Your task to perform on an android device: What's on the menu at Chick-fil-A? Image 0: 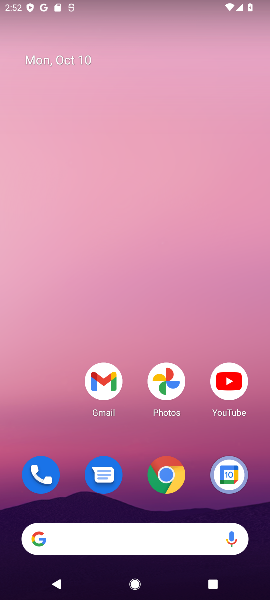
Step 0: drag from (142, 500) to (165, 170)
Your task to perform on an android device: What's on the menu at Chick-fil-A? Image 1: 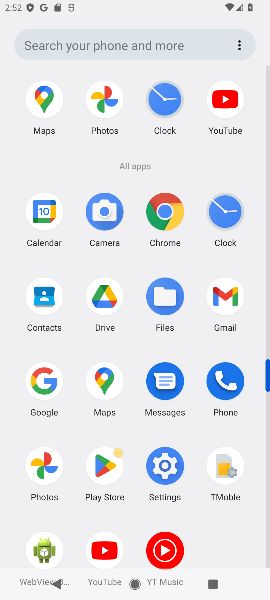
Step 1: click (50, 394)
Your task to perform on an android device: What's on the menu at Chick-fil-A? Image 2: 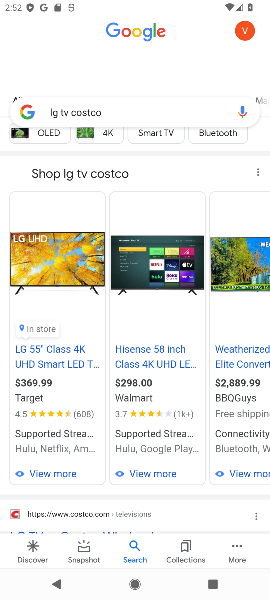
Step 2: click (123, 108)
Your task to perform on an android device: What's on the menu at Chick-fil-A? Image 3: 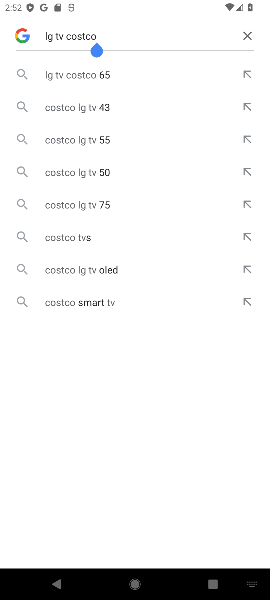
Step 3: click (248, 36)
Your task to perform on an android device: What's on the menu at Chick-fil-A? Image 4: 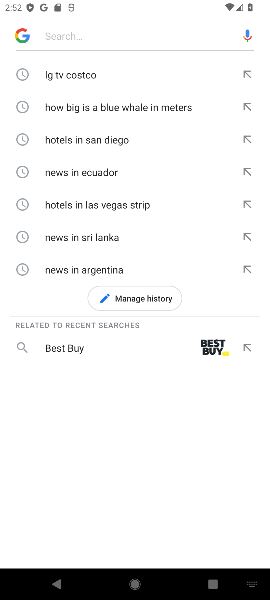
Step 4: type "Chick-fil-A"
Your task to perform on an android device: What's on the menu at Chick-fil-A? Image 5: 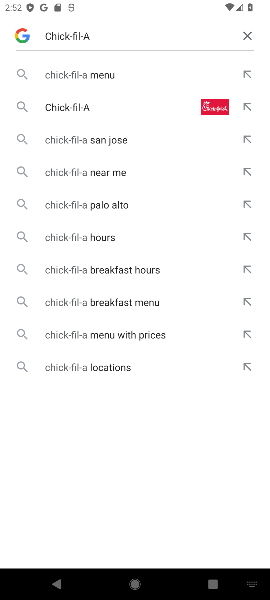
Step 5: click (99, 110)
Your task to perform on an android device: What's on the menu at Chick-fil-A? Image 6: 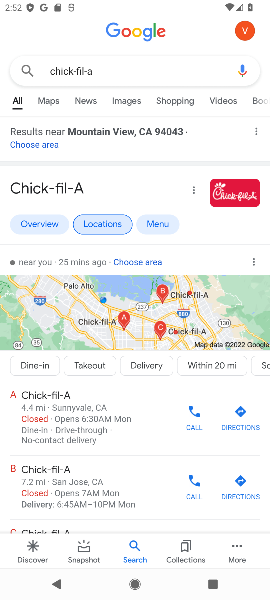
Step 6: drag from (110, 486) to (101, 190)
Your task to perform on an android device: What's on the menu at Chick-fil-A? Image 7: 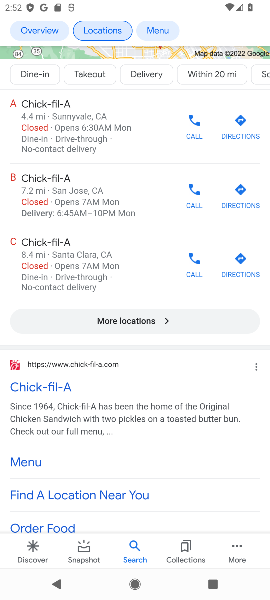
Step 7: click (59, 384)
Your task to perform on an android device: What's on the menu at Chick-fil-A? Image 8: 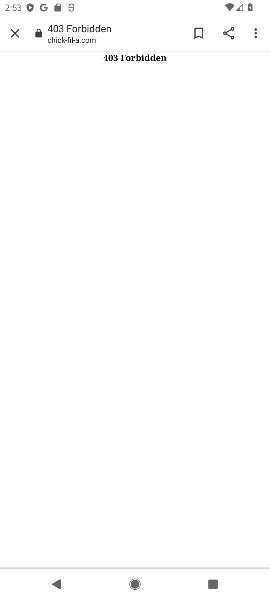
Step 8: task complete